Your task to perform on an android device: toggle airplane mode Image 0: 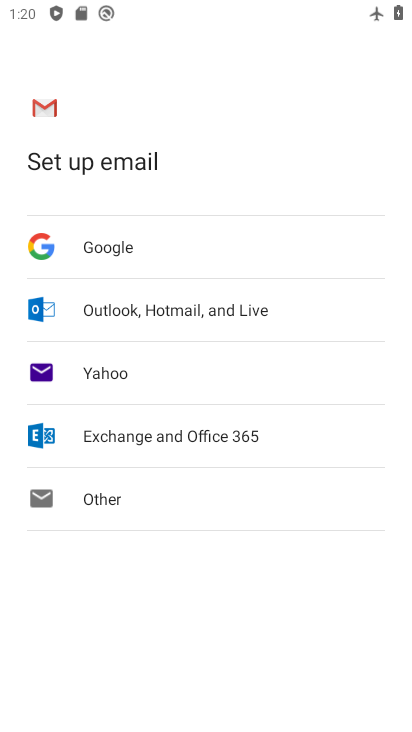
Step 0: press home button
Your task to perform on an android device: toggle airplane mode Image 1: 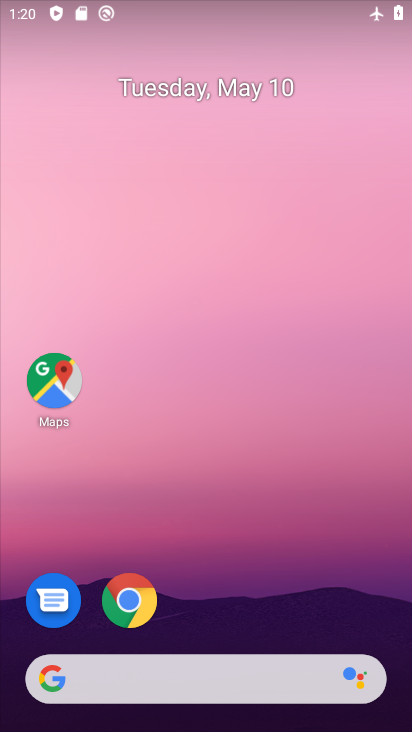
Step 1: drag from (164, 647) to (72, 43)
Your task to perform on an android device: toggle airplane mode Image 2: 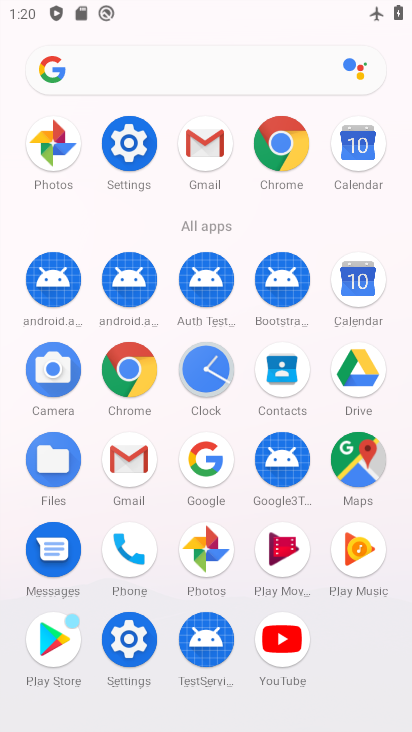
Step 2: click (134, 138)
Your task to perform on an android device: toggle airplane mode Image 3: 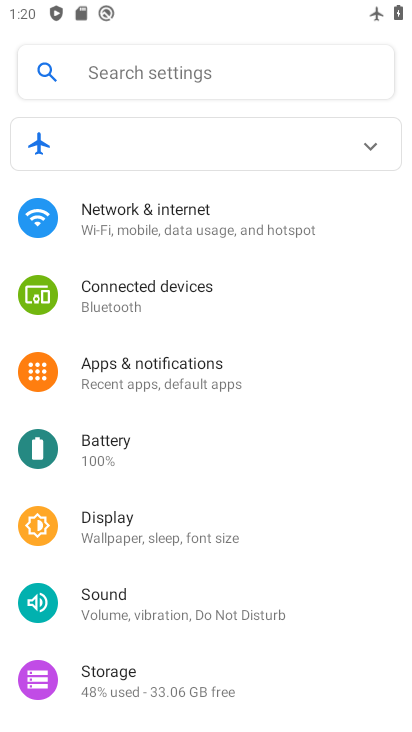
Step 3: click (159, 223)
Your task to perform on an android device: toggle airplane mode Image 4: 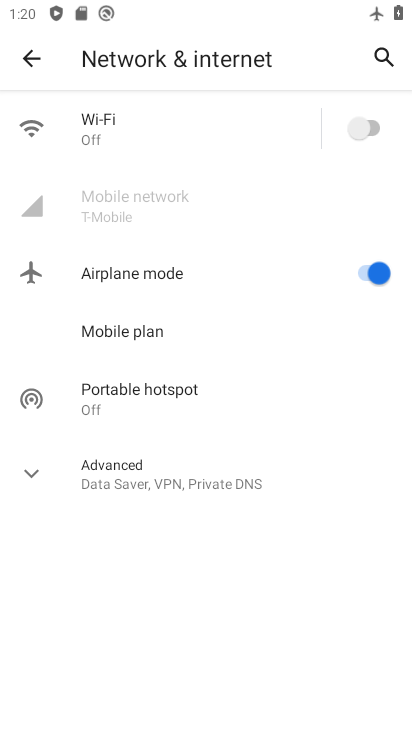
Step 4: click (362, 276)
Your task to perform on an android device: toggle airplane mode Image 5: 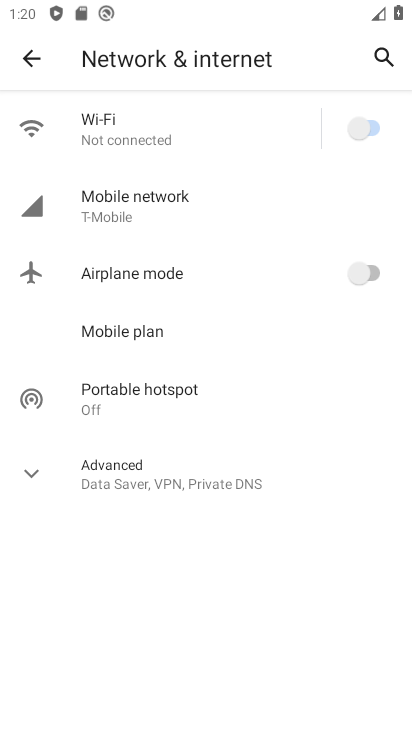
Step 5: task complete